Your task to perform on an android device: Show me productivity apps on the Play Store Image 0: 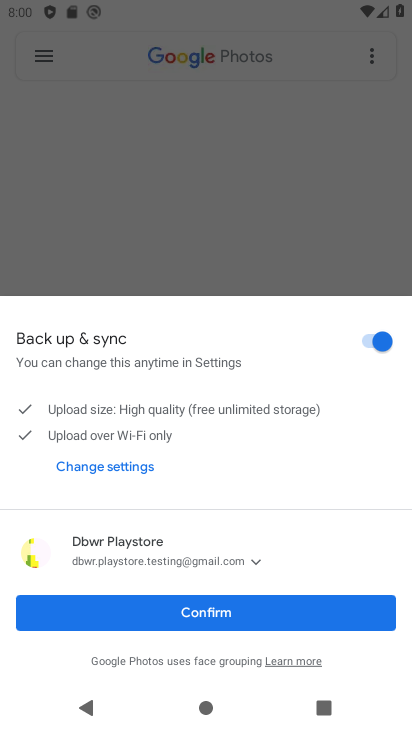
Step 0: press home button
Your task to perform on an android device: Show me productivity apps on the Play Store Image 1: 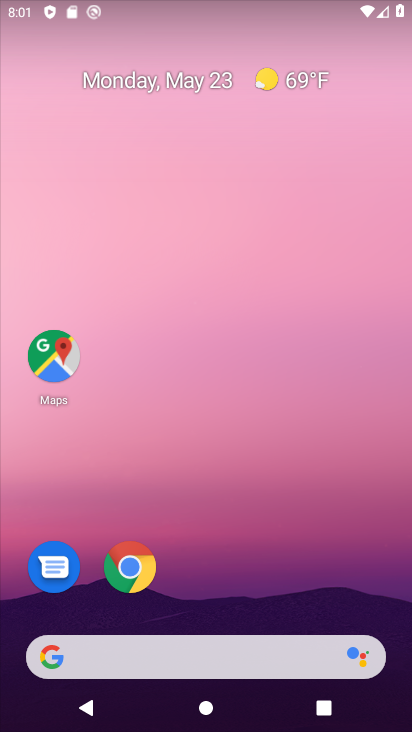
Step 1: drag from (189, 609) to (180, 68)
Your task to perform on an android device: Show me productivity apps on the Play Store Image 2: 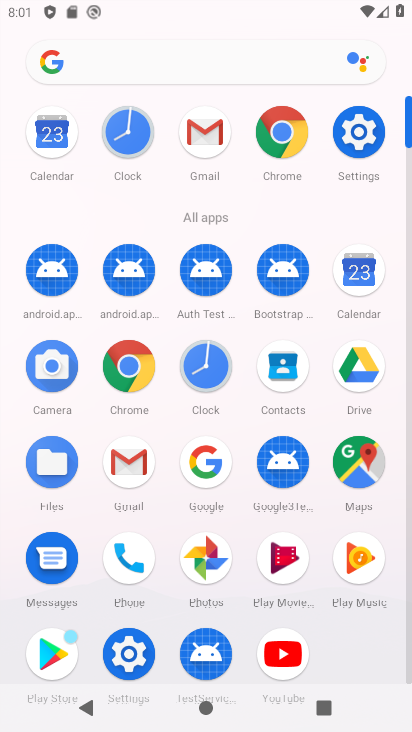
Step 2: click (63, 656)
Your task to perform on an android device: Show me productivity apps on the Play Store Image 3: 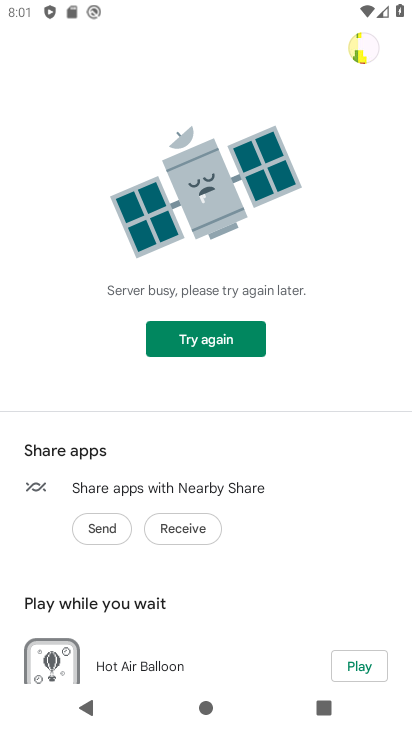
Step 3: click (204, 329)
Your task to perform on an android device: Show me productivity apps on the Play Store Image 4: 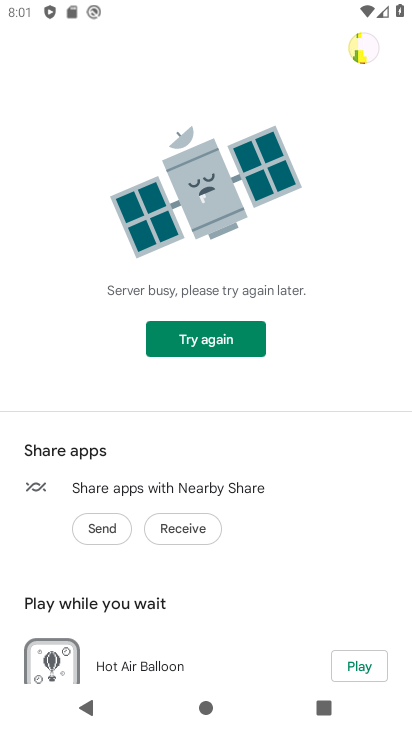
Step 4: click (195, 337)
Your task to perform on an android device: Show me productivity apps on the Play Store Image 5: 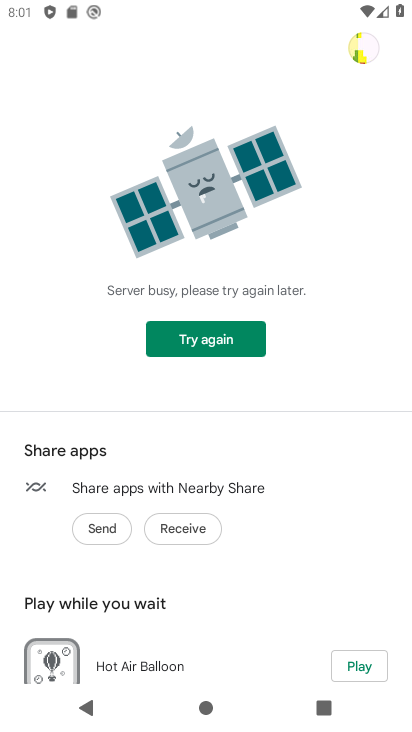
Step 5: click (166, 346)
Your task to perform on an android device: Show me productivity apps on the Play Store Image 6: 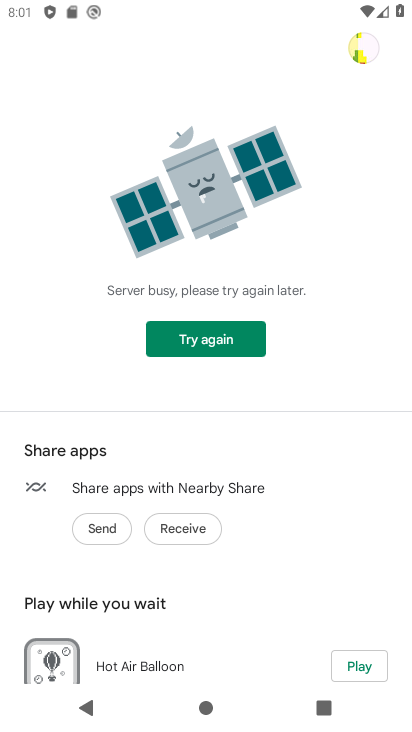
Step 6: click (165, 349)
Your task to perform on an android device: Show me productivity apps on the Play Store Image 7: 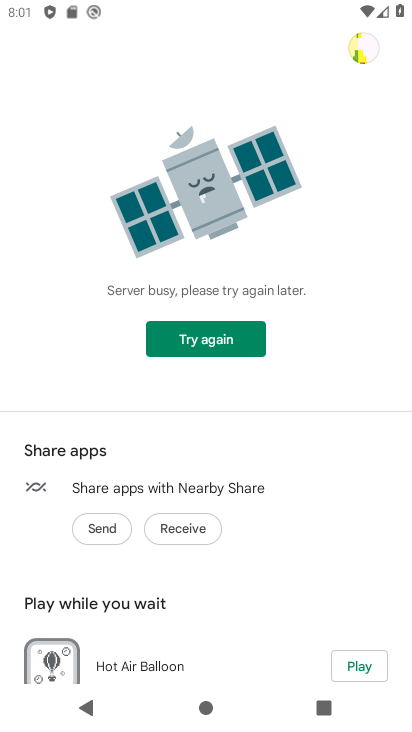
Step 7: click (165, 349)
Your task to perform on an android device: Show me productivity apps on the Play Store Image 8: 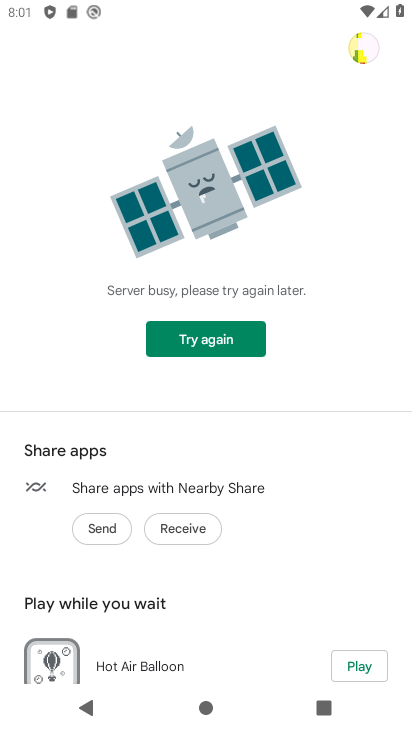
Step 8: click (199, 338)
Your task to perform on an android device: Show me productivity apps on the Play Store Image 9: 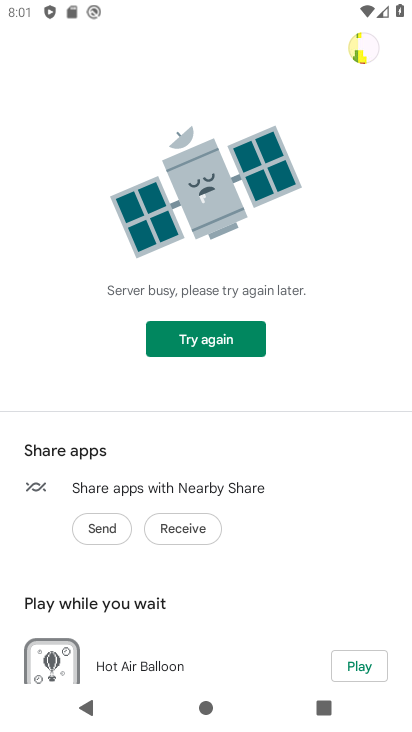
Step 9: task complete